Your task to perform on an android device: What's on my calendar today? Image 0: 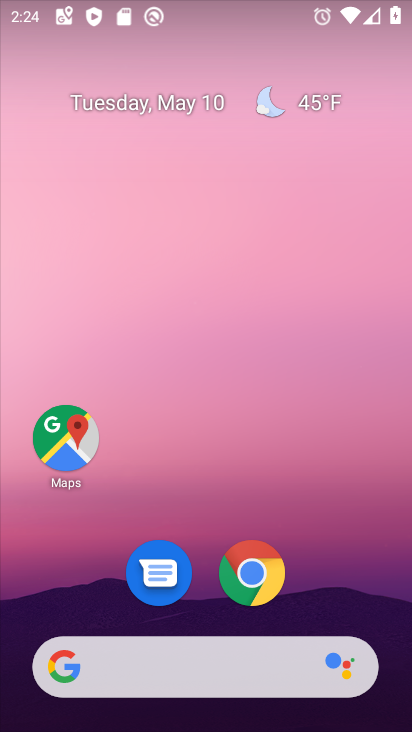
Step 0: drag from (179, 718) to (174, 70)
Your task to perform on an android device: What's on my calendar today? Image 1: 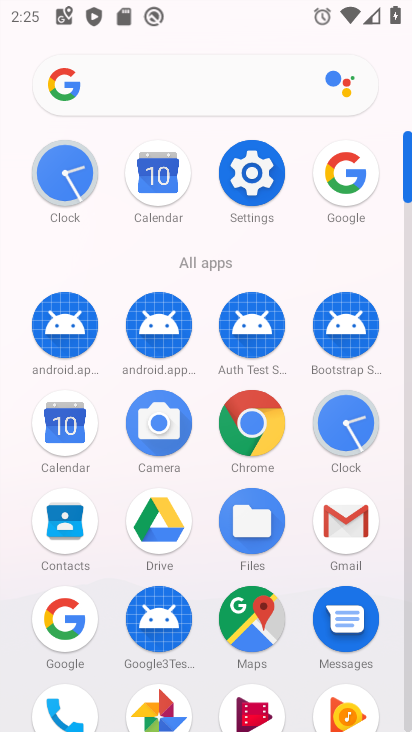
Step 1: click (79, 426)
Your task to perform on an android device: What's on my calendar today? Image 2: 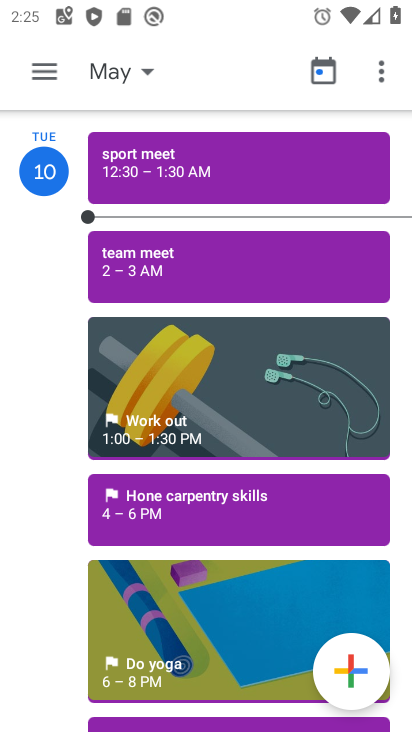
Step 2: task complete